Your task to perform on an android device: Open Amazon Image 0: 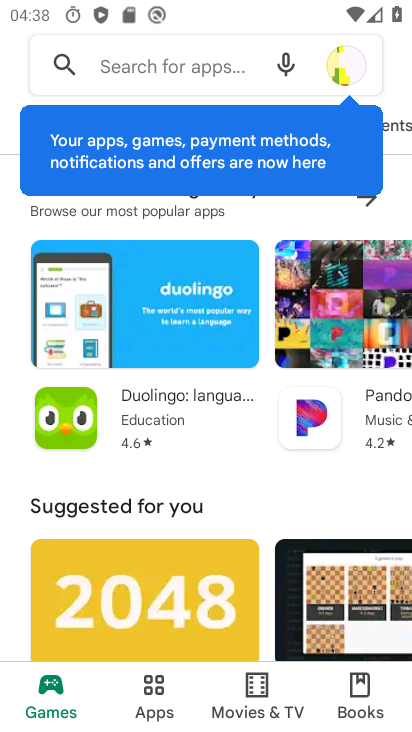
Step 0: press home button
Your task to perform on an android device: Open Amazon Image 1: 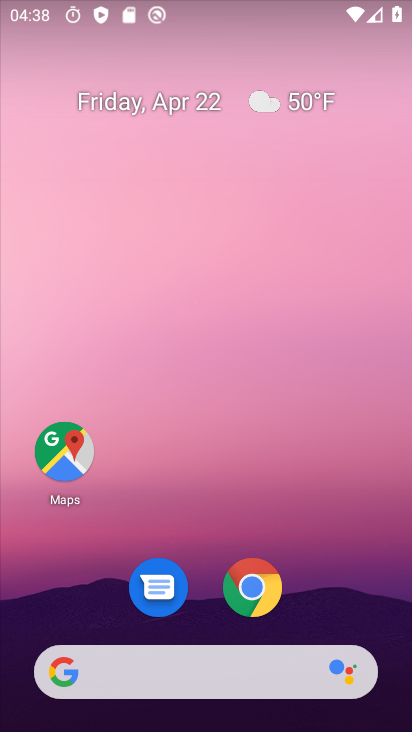
Step 1: click (253, 586)
Your task to perform on an android device: Open Amazon Image 2: 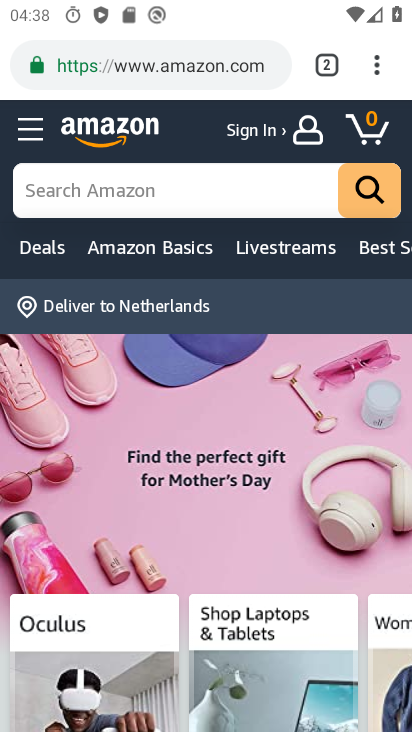
Step 2: task complete